Your task to perform on an android device: delete browsing data in the chrome app Image 0: 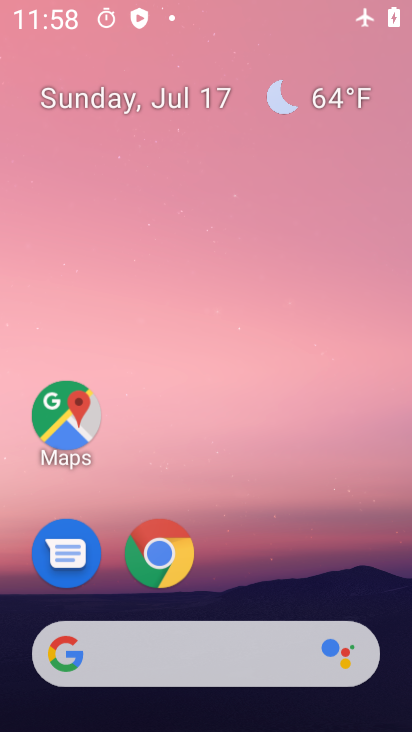
Step 0: click (345, 236)
Your task to perform on an android device: delete browsing data in the chrome app Image 1: 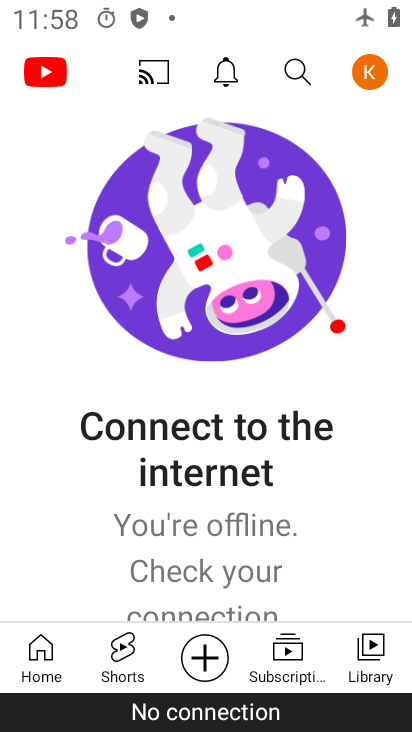
Step 1: press home button
Your task to perform on an android device: delete browsing data in the chrome app Image 2: 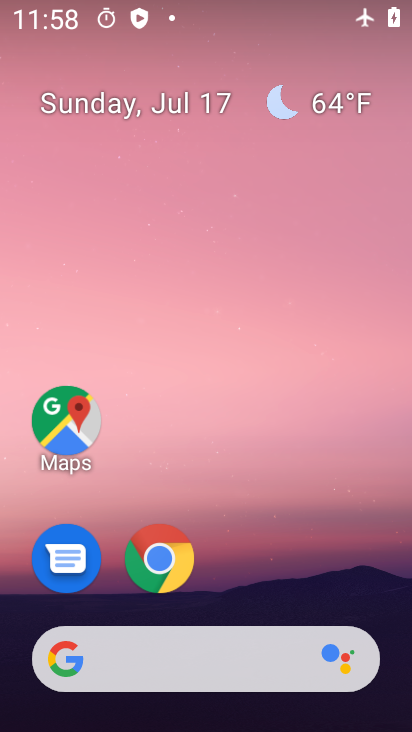
Step 2: drag from (358, 534) to (335, 85)
Your task to perform on an android device: delete browsing data in the chrome app Image 3: 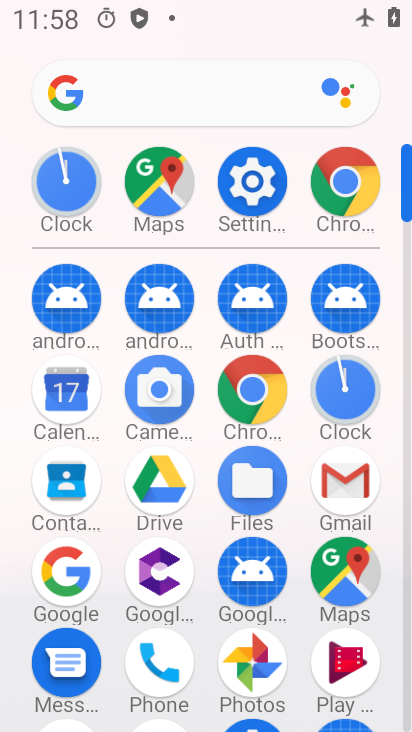
Step 3: click (360, 203)
Your task to perform on an android device: delete browsing data in the chrome app Image 4: 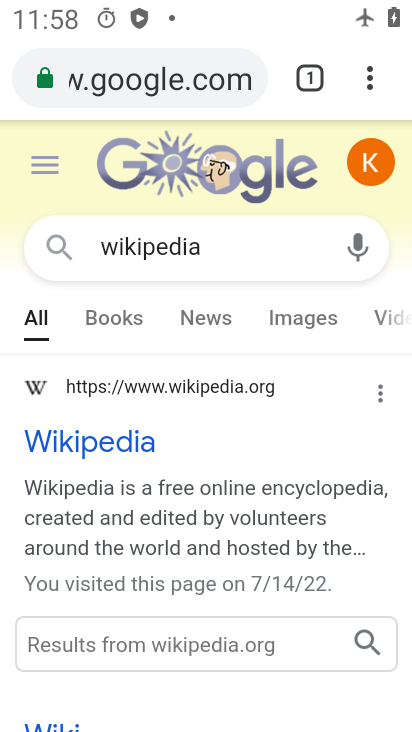
Step 4: click (371, 85)
Your task to perform on an android device: delete browsing data in the chrome app Image 5: 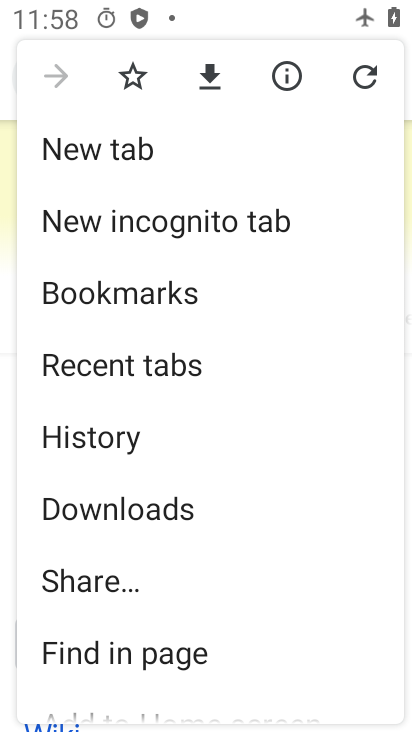
Step 5: drag from (353, 314) to (360, 274)
Your task to perform on an android device: delete browsing data in the chrome app Image 6: 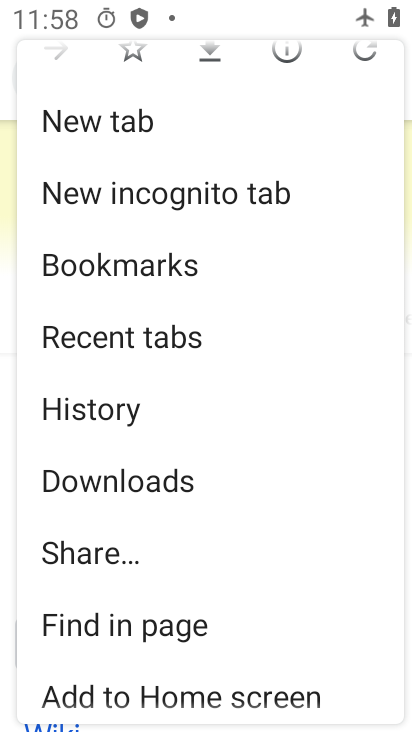
Step 6: drag from (353, 351) to (356, 294)
Your task to perform on an android device: delete browsing data in the chrome app Image 7: 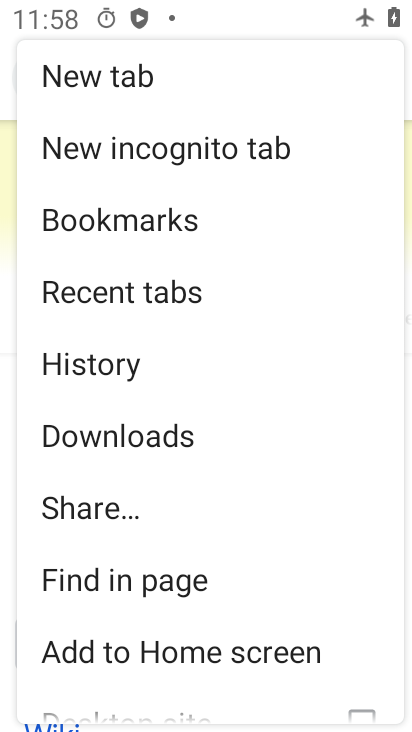
Step 7: drag from (344, 350) to (345, 301)
Your task to perform on an android device: delete browsing data in the chrome app Image 8: 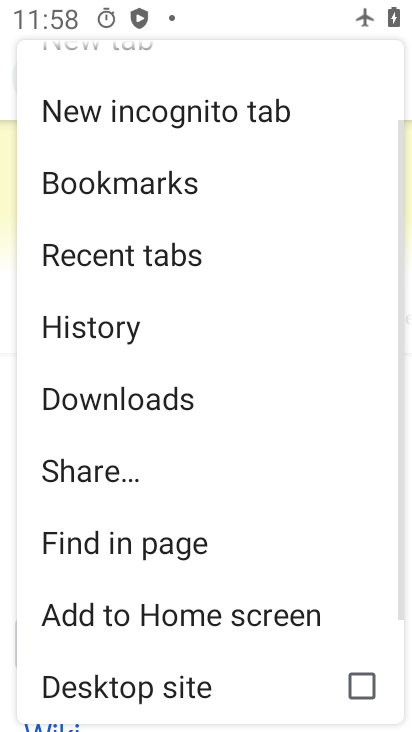
Step 8: drag from (331, 359) to (331, 305)
Your task to perform on an android device: delete browsing data in the chrome app Image 9: 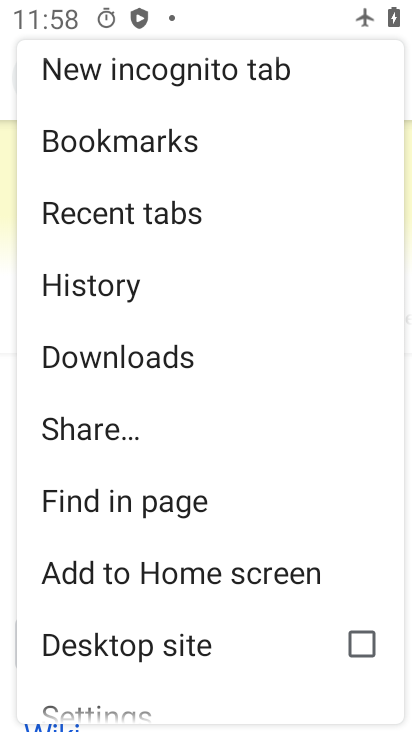
Step 9: drag from (319, 413) to (321, 341)
Your task to perform on an android device: delete browsing data in the chrome app Image 10: 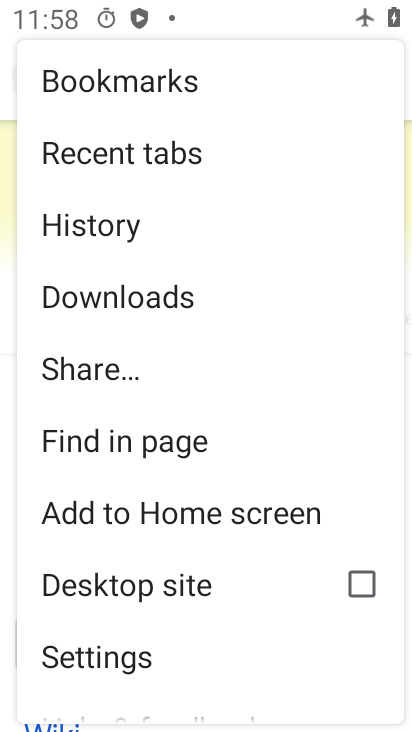
Step 10: drag from (307, 400) to (309, 325)
Your task to perform on an android device: delete browsing data in the chrome app Image 11: 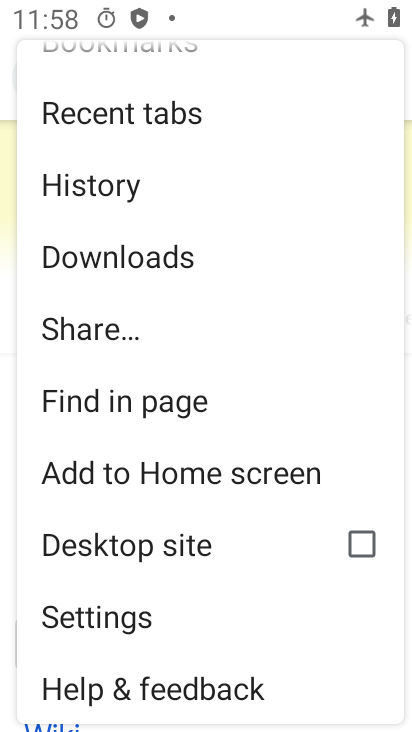
Step 11: drag from (302, 383) to (287, 286)
Your task to perform on an android device: delete browsing data in the chrome app Image 12: 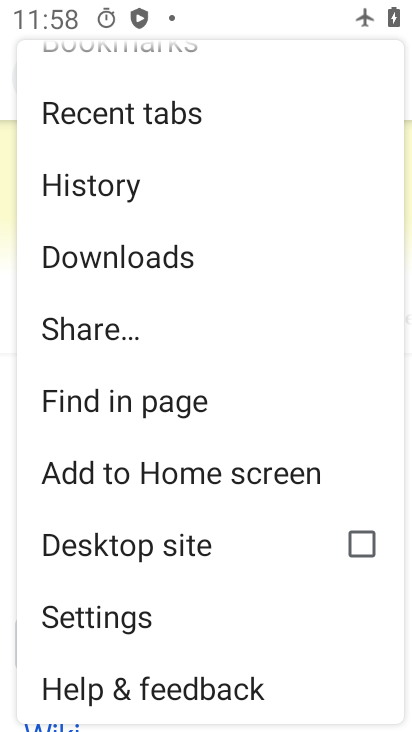
Step 12: click (129, 627)
Your task to perform on an android device: delete browsing data in the chrome app Image 13: 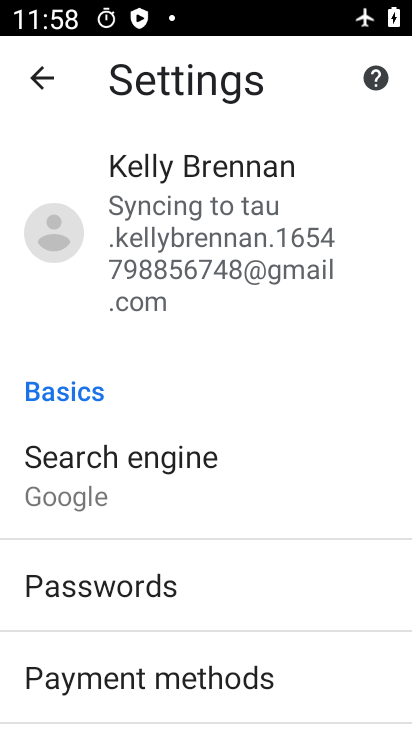
Step 13: drag from (292, 493) to (311, 338)
Your task to perform on an android device: delete browsing data in the chrome app Image 14: 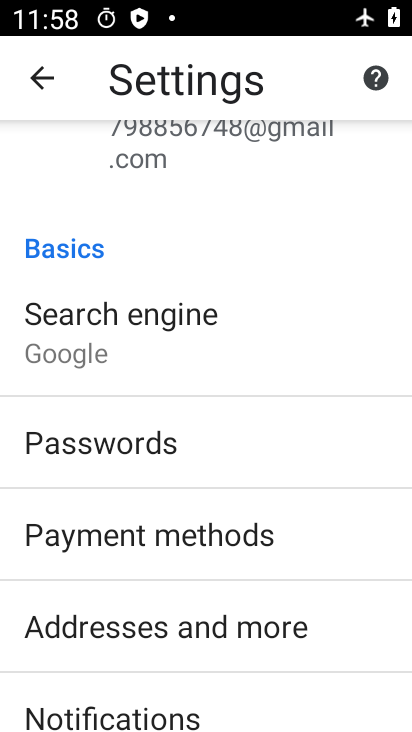
Step 14: drag from (313, 470) to (302, 351)
Your task to perform on an android device: delete browsing data in the chrome app Image 15: 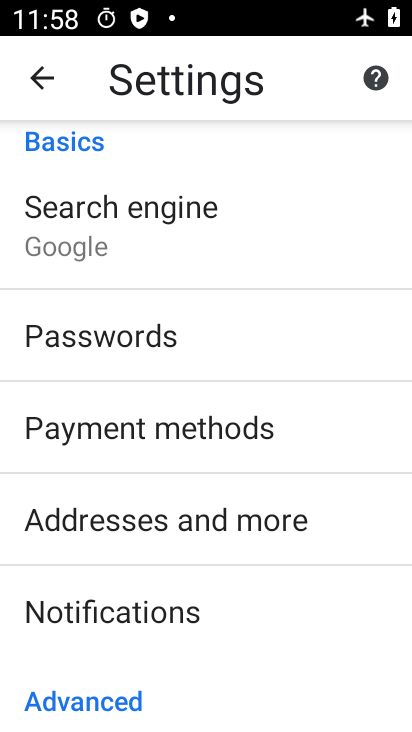
Step 15: drag from (339, 556) to (336, 449)
Your task to perform on an android device: delete browsing data in the chrome app Image 16: 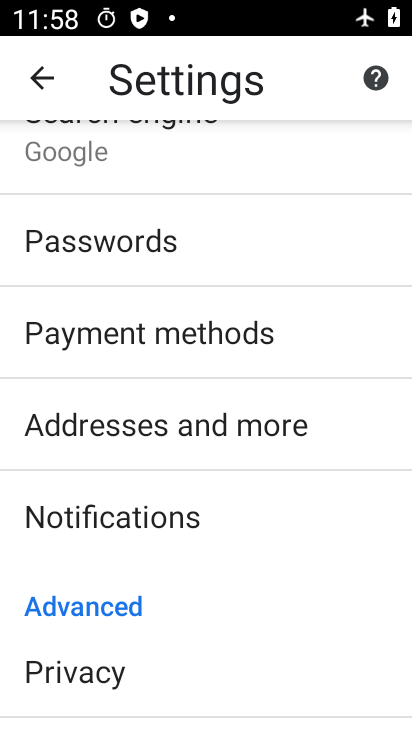
Step 16: drag from (347, 576) to (344, 474)
Your task to perform on an android device: delete browsing data in the chrome app Image 17: 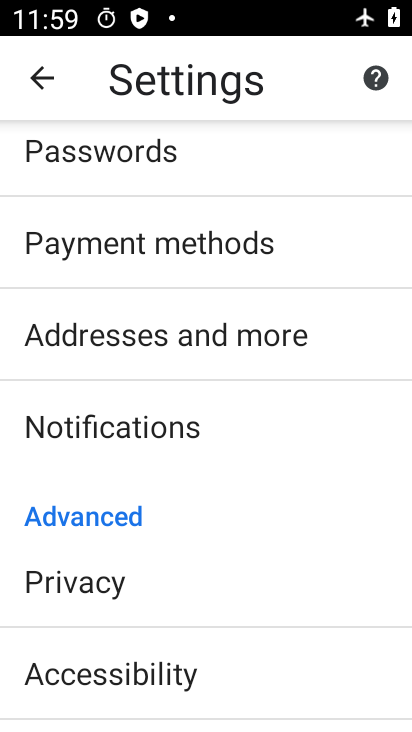
Step 17: drag from (341, 572) to (335, 495)
Your task to perform on an android device: delete browsing data in the chrome app Image 18: 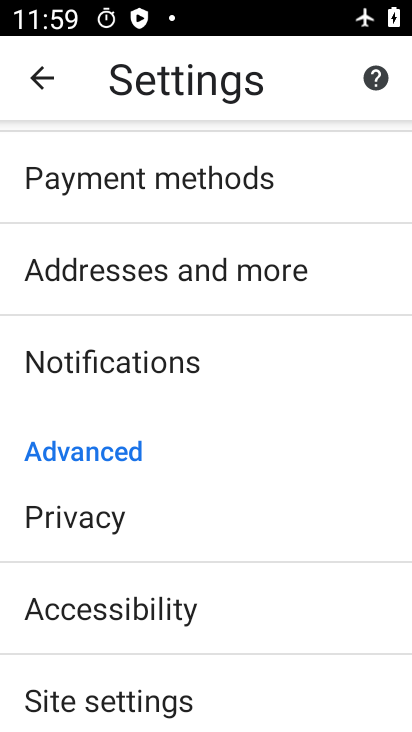
Step 18: drag from (333, 592) to (324, 469)
Your task to perform on an android device: delete browsing data in the chrome app Image 19: 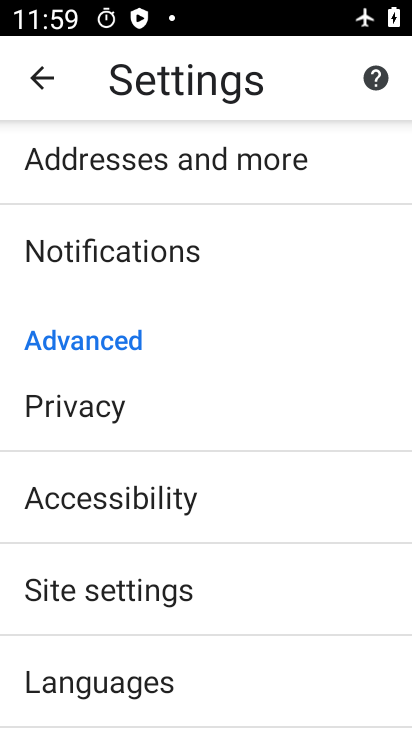
Step 19: drag from (315, 572) to (299, 461)
Your task to perform on an android device: delete browsing data in the chrome app Image 20: 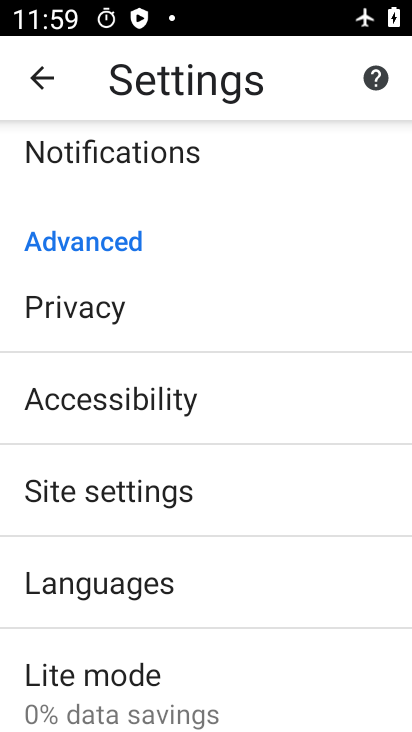
Step 20: click (249, 305)
Your task to perform on an android device: delete browsing data in the chrome app Image 21: 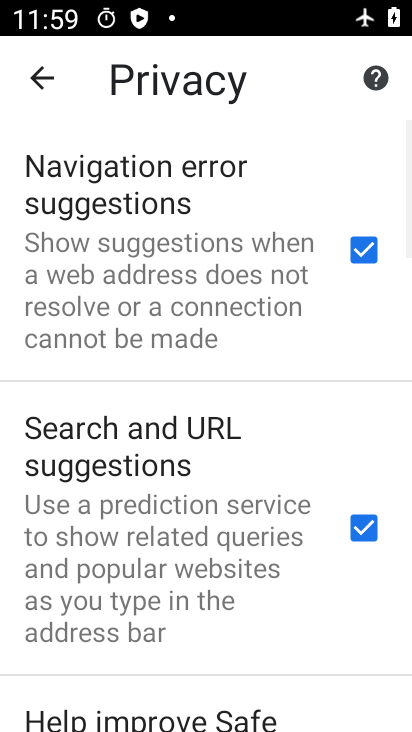
Step 21: drag from (304, 549) to (281, 360)
Your task to perform on an android device: delete browsing data in the chrome app Image 22: 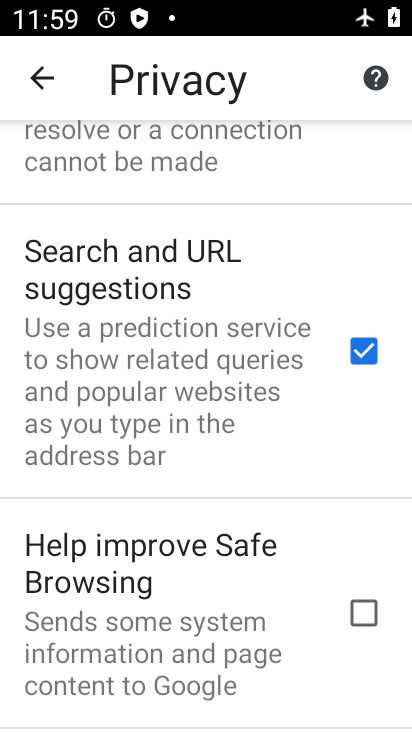
Step 22: drag from (274, 509) to (274, 409)
Your task to perform on an android device: delete browsing data in the chrome app Image 23: 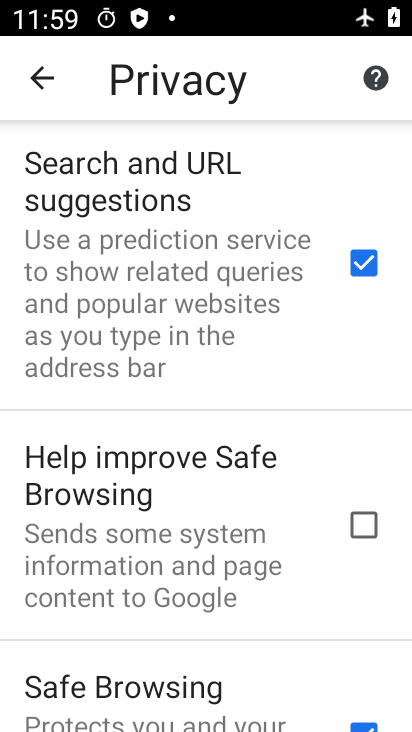
Step 23: drag from (267, 565) to (267, 462)
Your task to perform on an android device: delete browsing data in the chrome app Image 24: 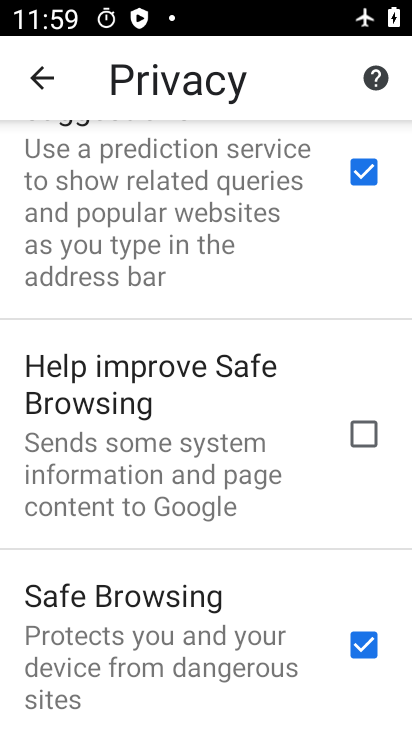
Step 24: drag from (286, 572) to (280, 444)
Your task to perform on an android device: delete browsing data in the chrome app Image 25: 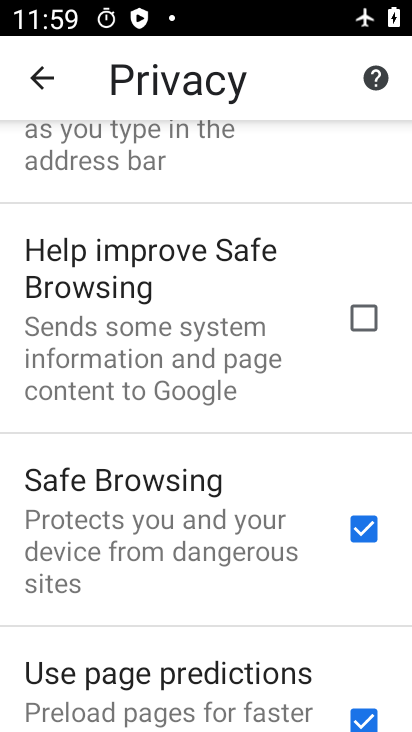
Step 25: drag from (290, 566) to (292, 456)
Your task to perform on an android device: delete browsing data in the chrome app Image 26: 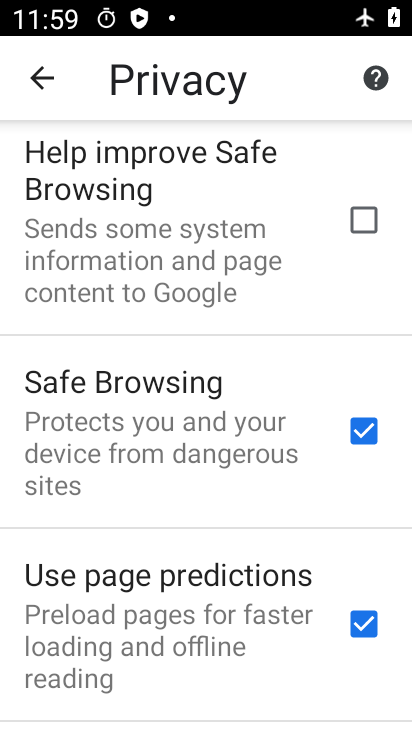
Step 26: drag from (292, 571) to (280, 387)
Your task to perform on an android device: delete browsing data in the chrome app Image 27: 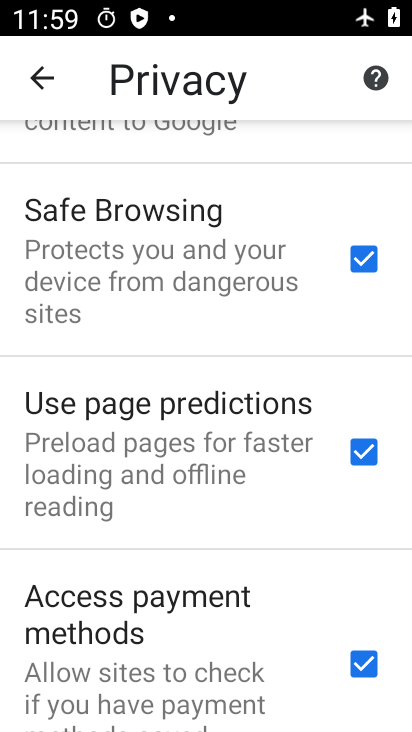
Step 27: drag from (298, 553) to (302, 444)
Your task to perform on an android device: delete browsing data in the chrome app Image 28: 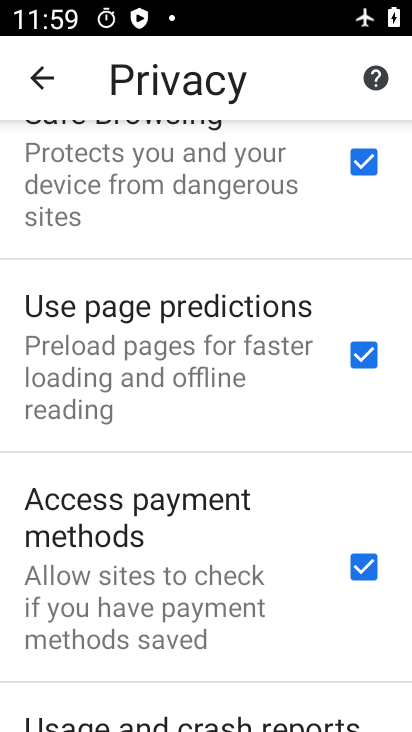
Step 28: drag from (298, 607) to (300, 483)
Your task to perform on an android device: delete browsing data in the chrome app Image 29: 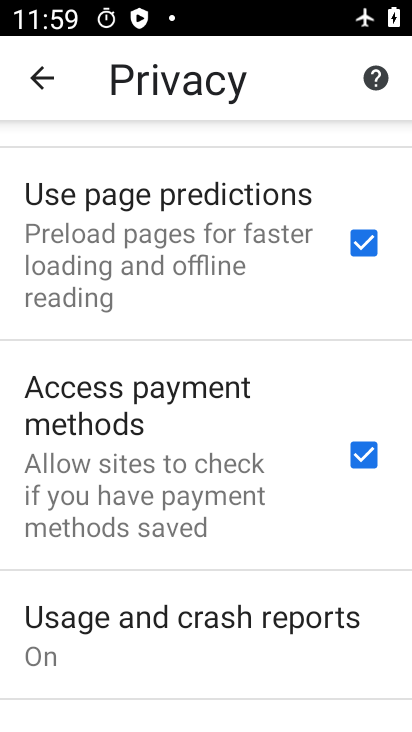
Step 29: drag from (307, 641) to (307, 458)
Your task to perform on an android device: delete browsing data in the chrome app Image 30: 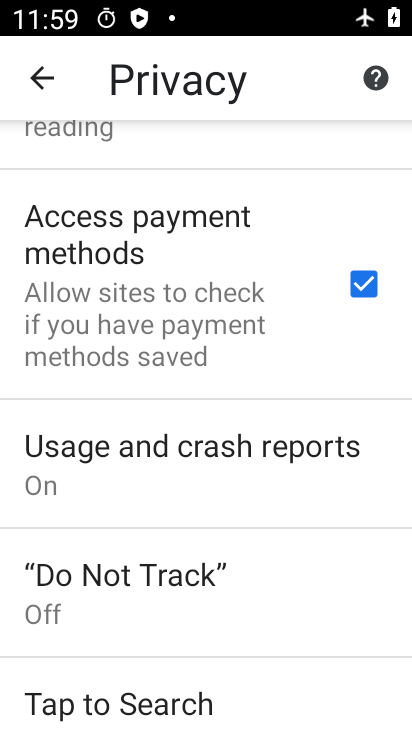
Step 30: drag from (302, 608) to (305, 460)
Your task to perform on an android device: delete browsing data in the chrome app Image 31: 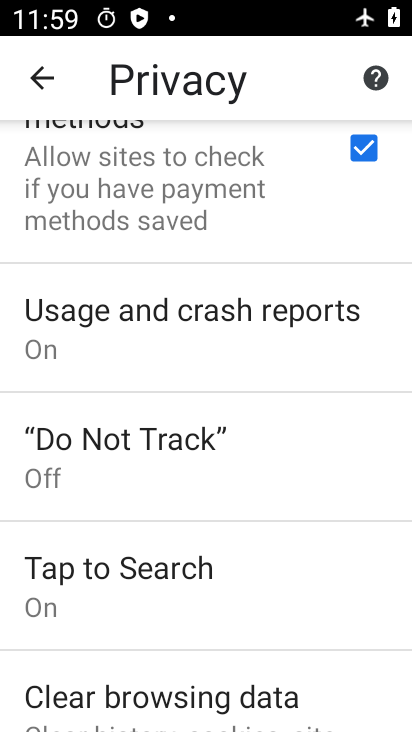
Step 31: drag from (306, 582) to (313, 371)
Your task to perform on an android device: delete browsing data in the chrome app Image 32: 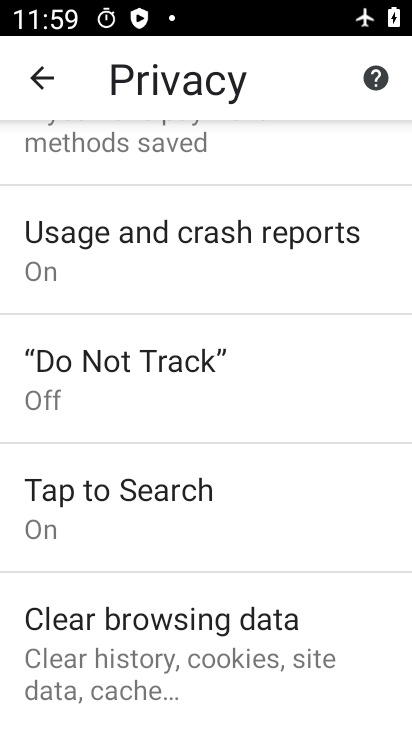
Step 32: click (341, 676)
Your task to perform on an android device: delete browsing data in the chrome app Image 33: 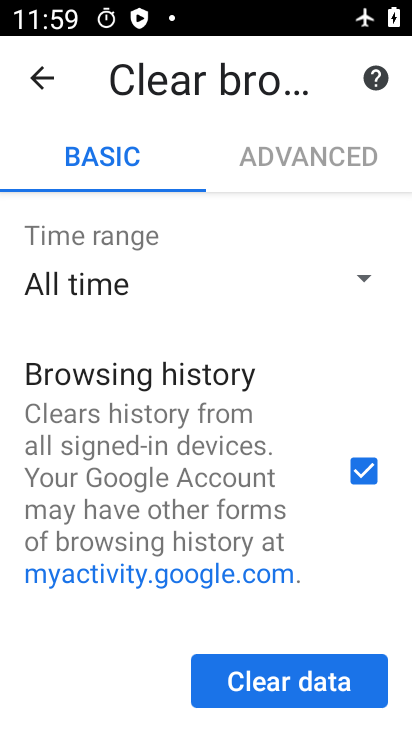
Step 33: click (313, 687)
Your task to perform on an android device: delete browsing data in the chrome app Image 34: 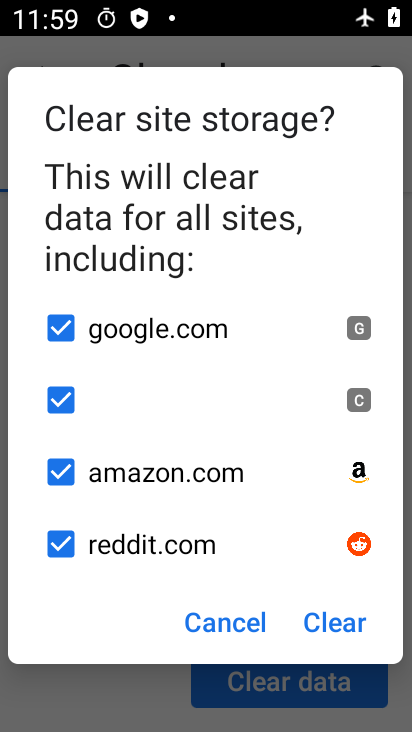
Step 34: click (328, 626)
Your task to perform on an android device: delete browsing data in the chrome app Image 35: 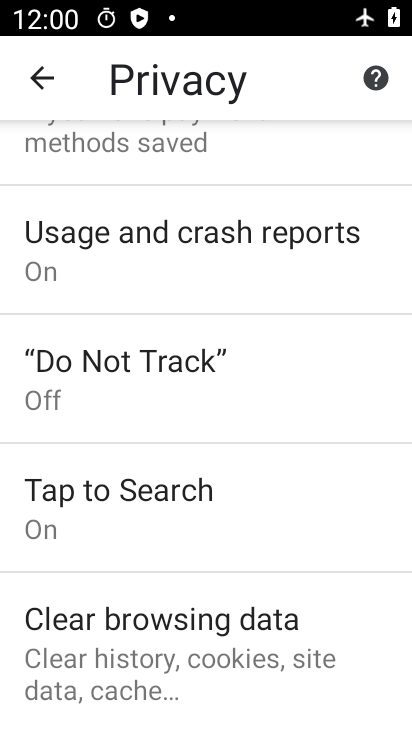
Step 35: task complete